Your task to perform on an android device: What's on my calendar today? Image 0: 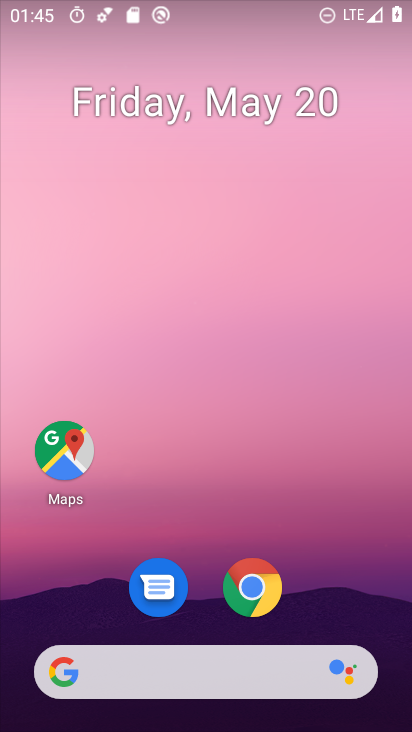
Step 0: drag from (374, 588) to (372, 193)
Your task to perform on an android device: What's on my calendar today? Image 1: 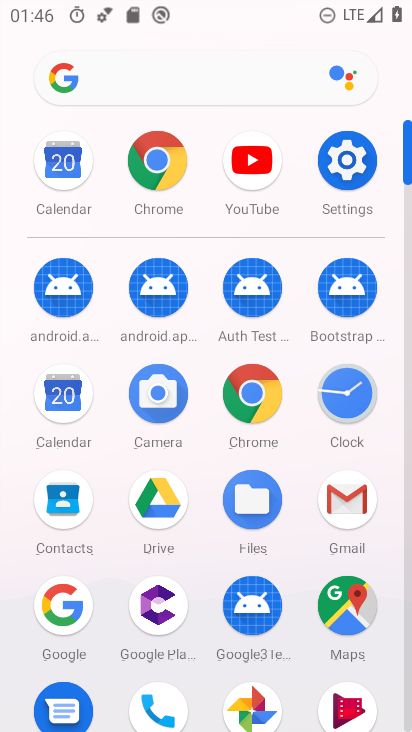
Step 1: click (79, 420)
Your task to perform on an android device: What's on my calendar today? Image 2: 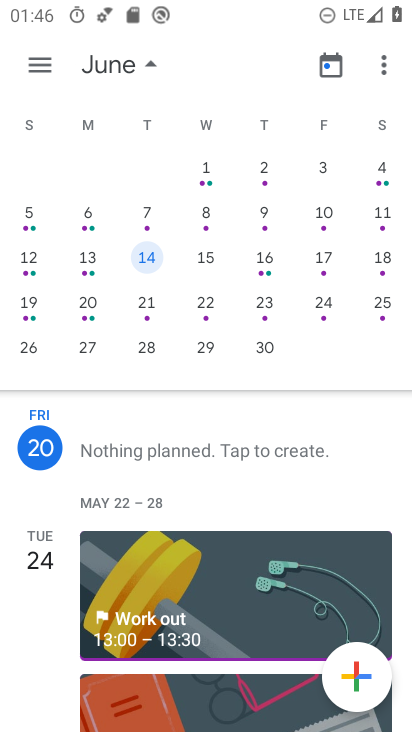
Step 2: drag from (52, 151) to (343, 169)
Your task to perform on an android device: What's on my calendar today? Image 3: 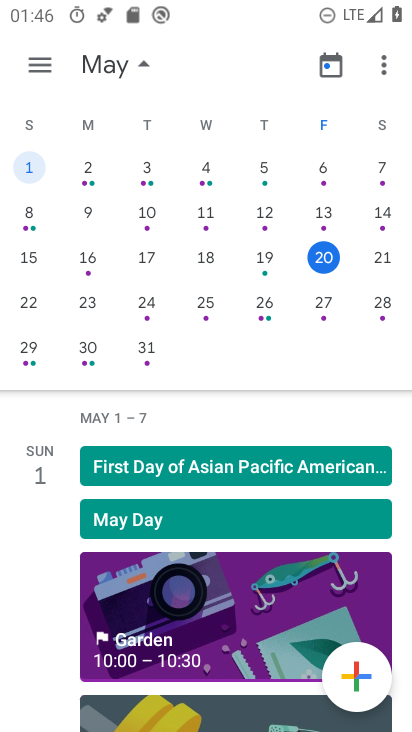
Step 3: click (318, 254)
Your task to perform on an android device: What's on my calendar today? Image 4: 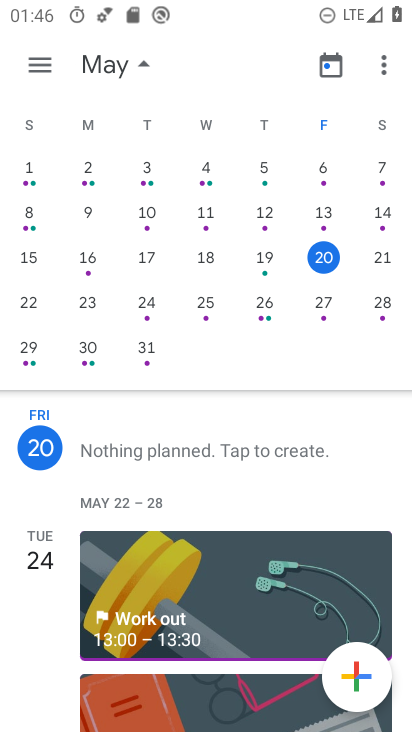
Step 4: task complete